Your task to perform on an android device: Search for pizza restaurants on Maps Image 0: 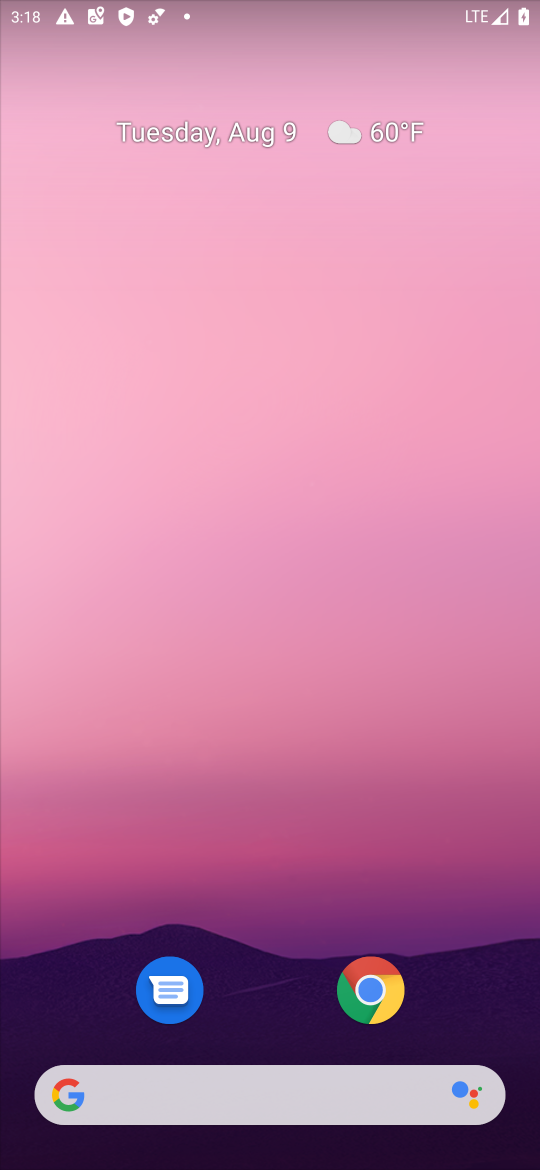
Step 0: drag from (309, 1111) to (309, 240)
Your task to perform on an android device: Search for pizza restaurants on Maps Image 1: 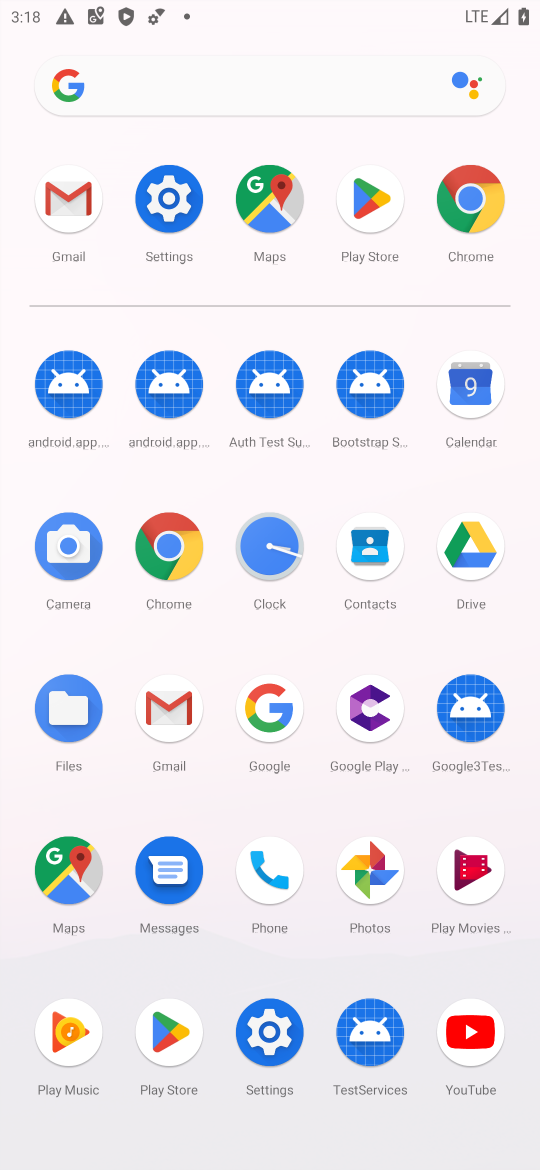
Step 1: click (58, 842)
Your task to perform on an android device: Search for pizza restaurants on Maps Image 2: 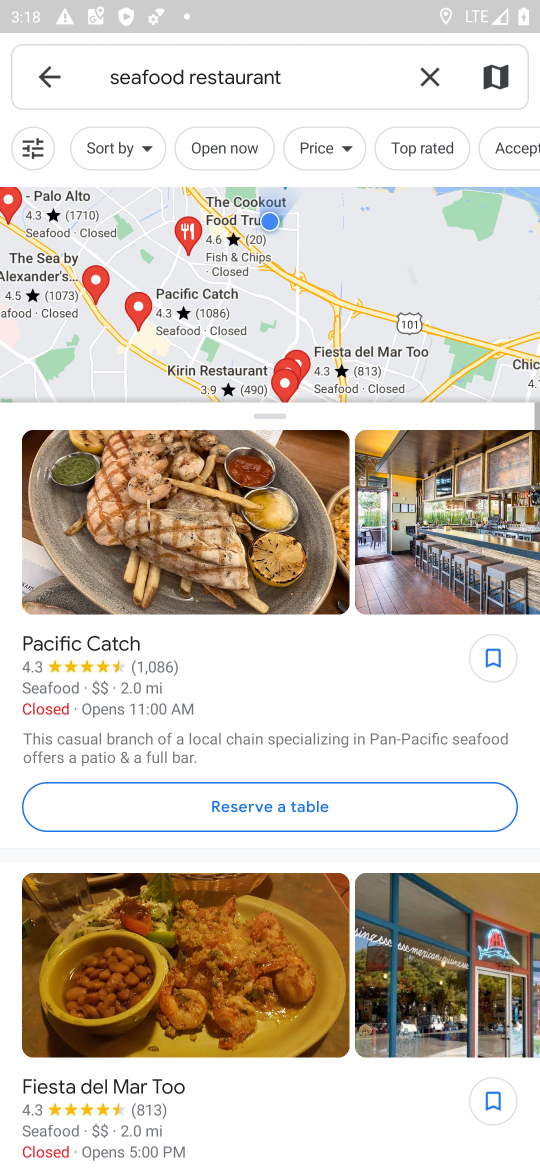
Step 2: press back button
Your task to perform on an android device: Search for pizza restaurants on Maps Image 3: 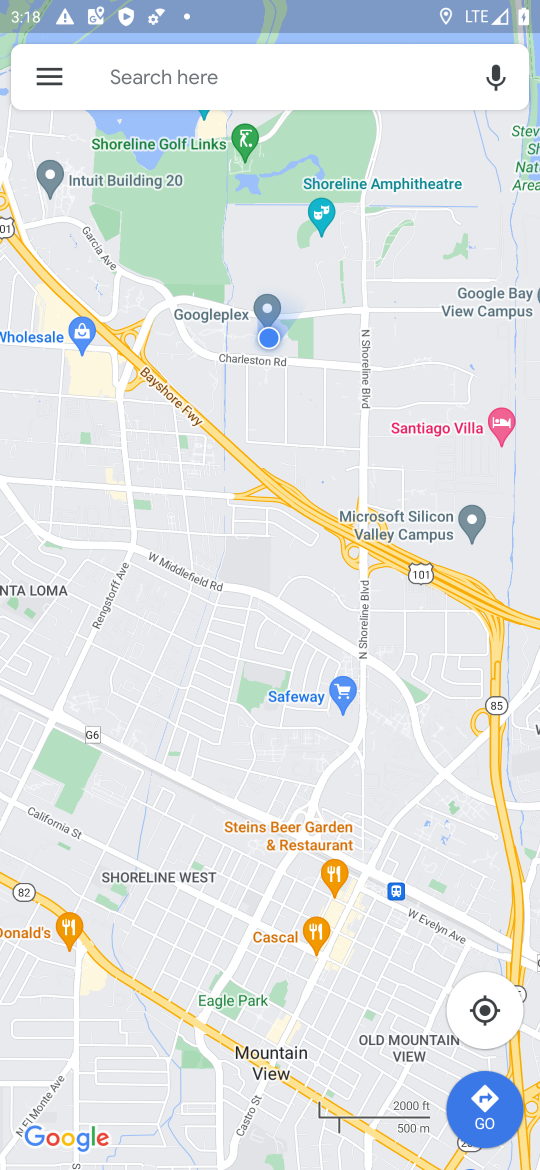
Step 3: click (111, 84)
Your task to perform on an android device: Search for pizza restaurants on Maps Image 4: 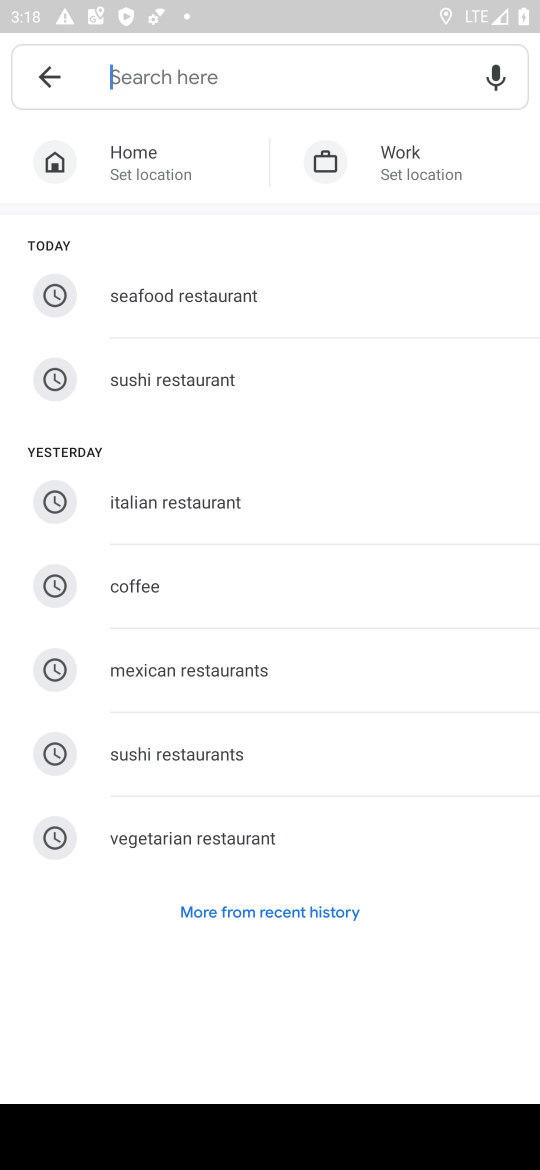
Step 4: type "pizza restaurant"
Your task to perform on an android device: Search for pizza restaurants on Maps Image 5: 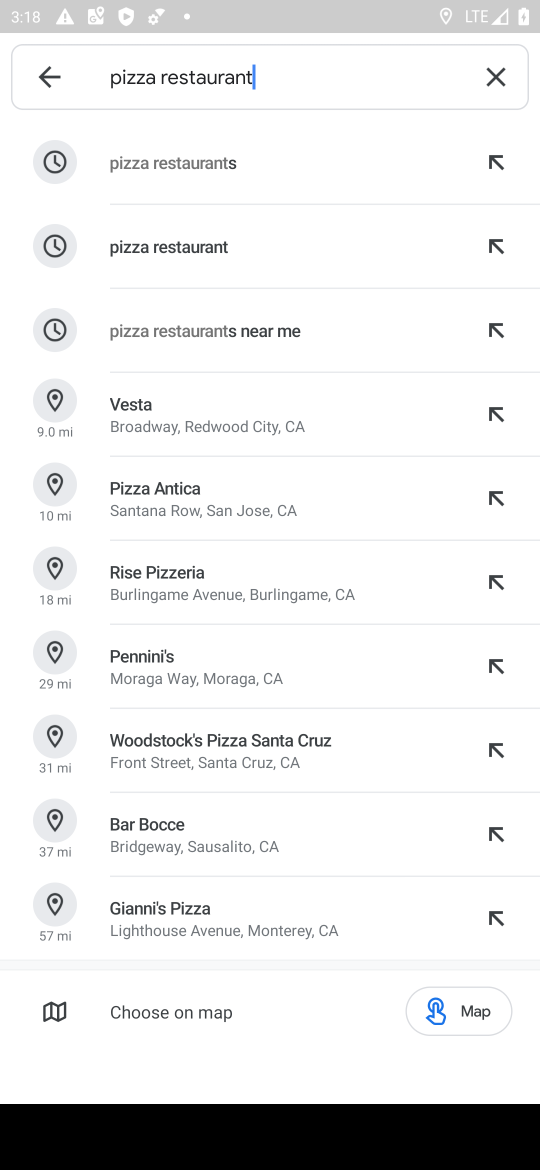
Step 5: click (232, 147)
Your task to perform on an android device: Search for pizza restaurants on Maps Image 6: 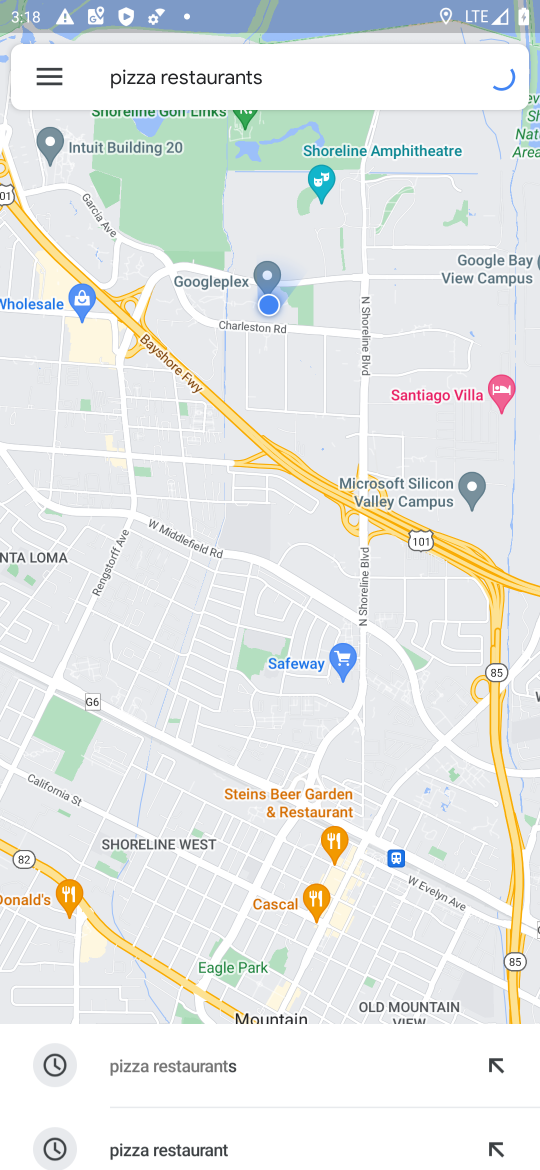
Step 6: task complete